Your task to perform on an android device: What is the news today? Image 0: 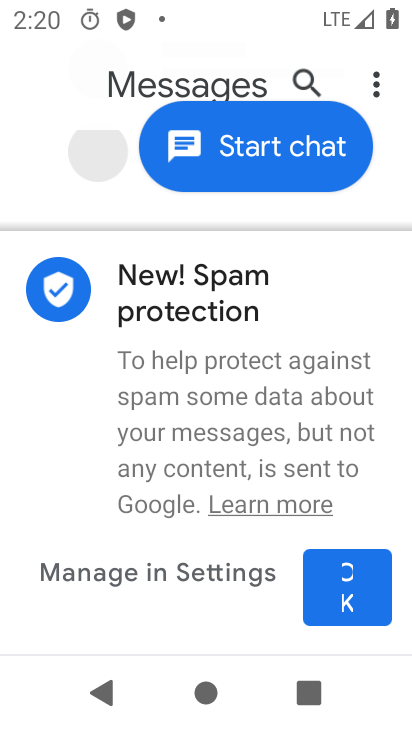
Step 0: press home button
Your task to perform on an android device: What is the news today? Image 1: 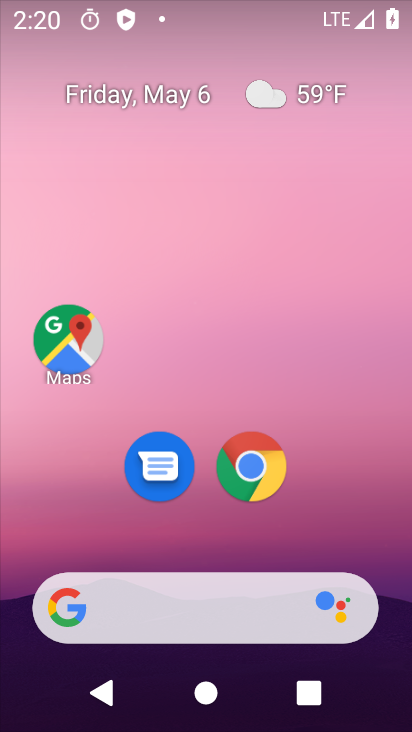
Step 1: click (262, 472)
Your task to perform on an android device: What is the news today? Image 2: 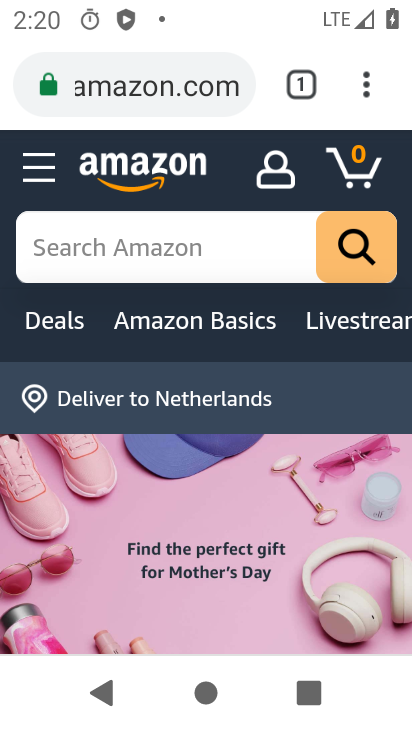
Step 2: click (198, 94)
Your task to perform on an android device: What is the news today? Image 3: 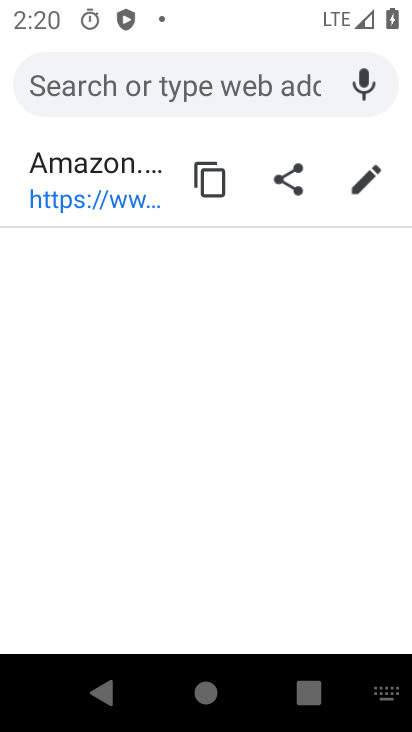
Step 3: type "news"
Your task to perform on an android device: What is the news today? Image 4: 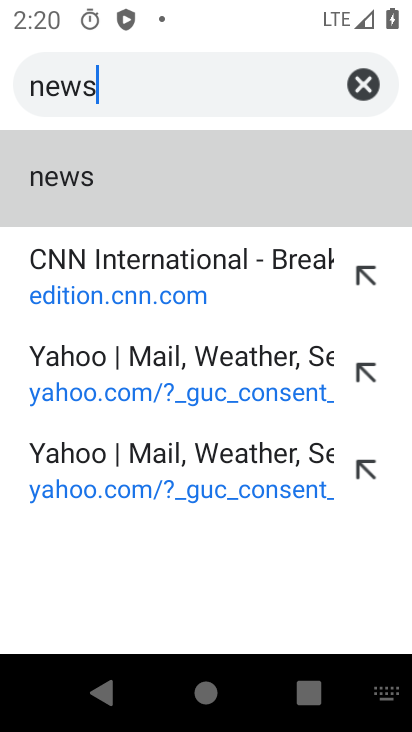
Step 4: click (132, 186)
Your task to perform on an android device: What is the news today? Image 5: 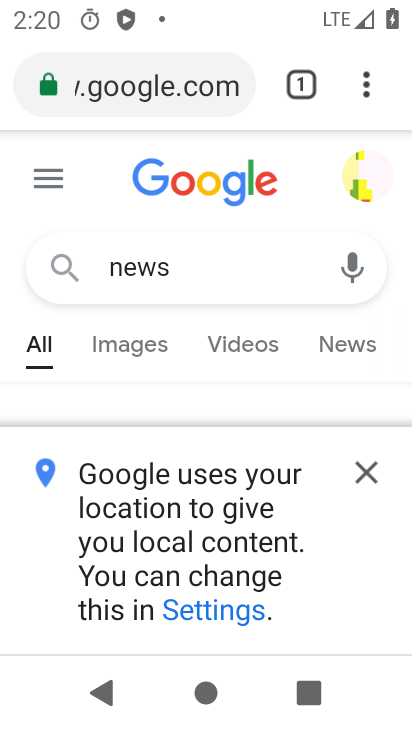
Step 5: click (374, 469)
Your task to perform on an android device: What is the news today? Image 6: 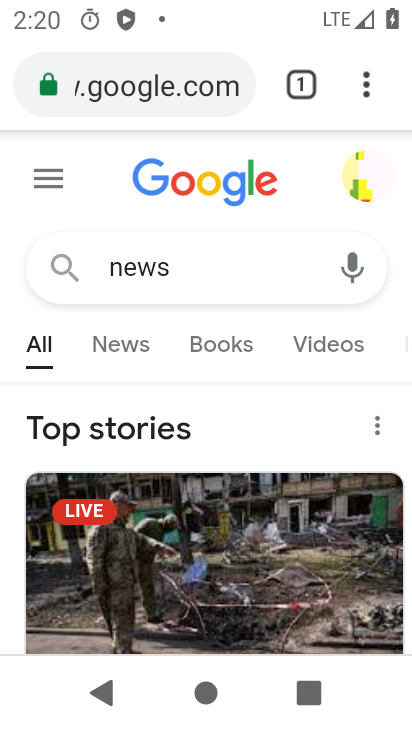
Step 6: click (118, 336)
Your task to perform on an android device: What is the news today? Image 7: 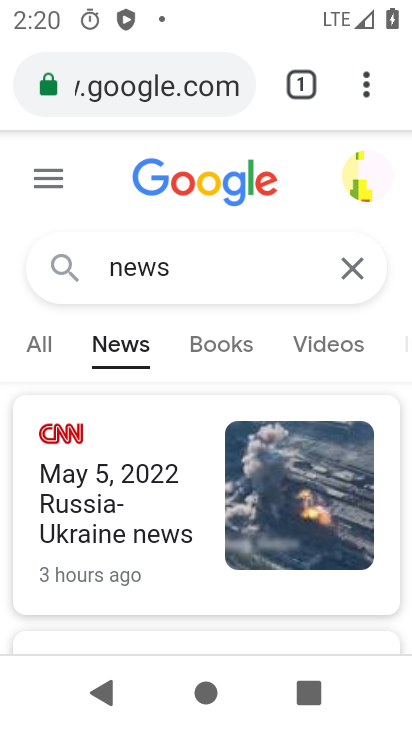
Step 7: task complete